Your task to perform on an android device: change alarm snooze length Image 0: 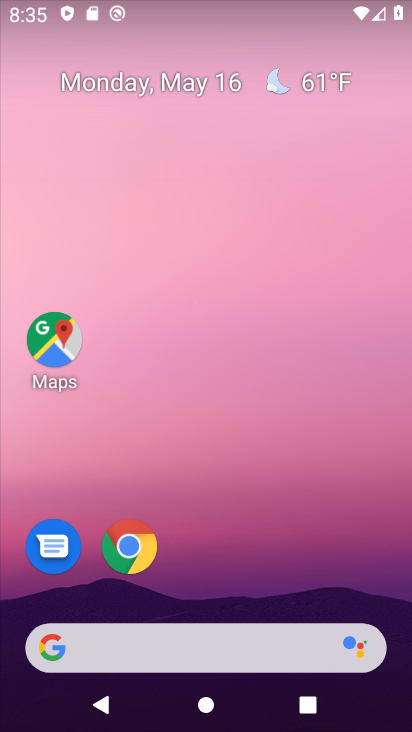
Step 0: drag from (273, 550) to (217, 186)
Your task to perform on an android device: change alarm snooze length Image 1: 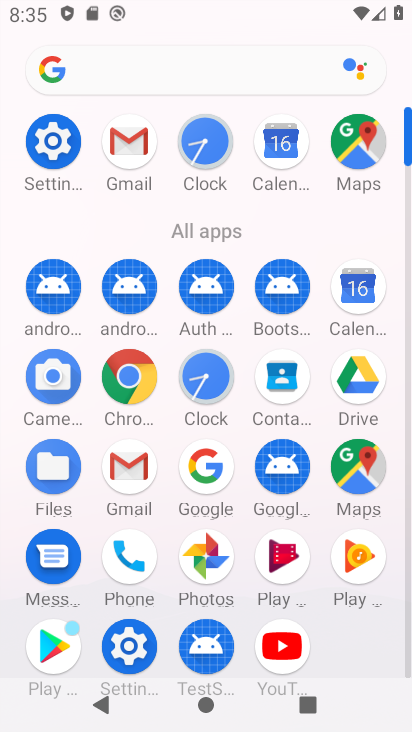
Step 1: click (210, 384)
Your task to perform on an android device: change alarm snooze length Image 2: 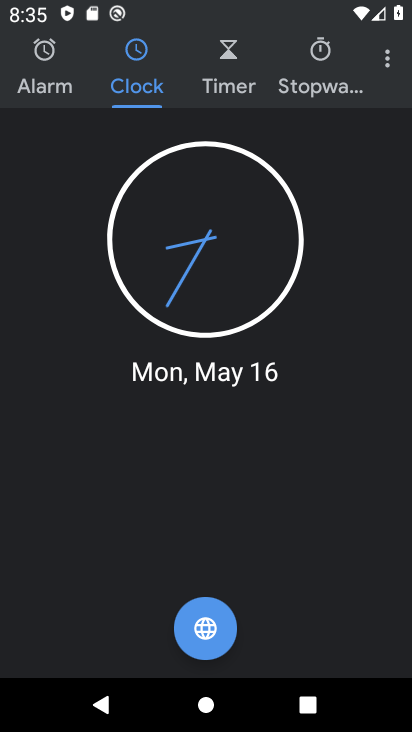
Step 2: click (392, 48)
Your task to perform on an android device: change alarm snooze length Image 3: 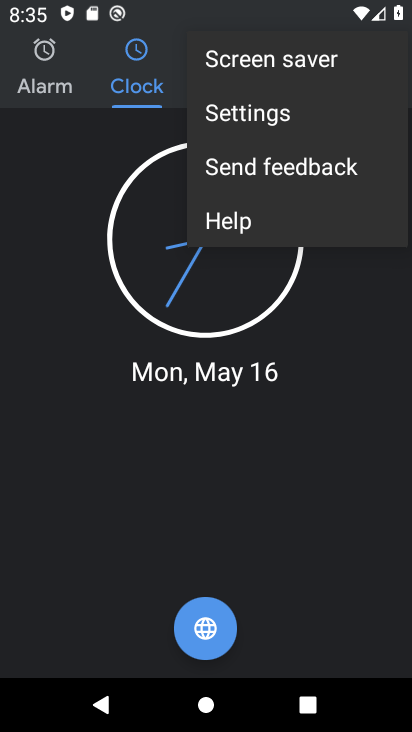
Step 3: click (265, 115)
Your task to perform on an android device: change alarm snooze length Image 4: 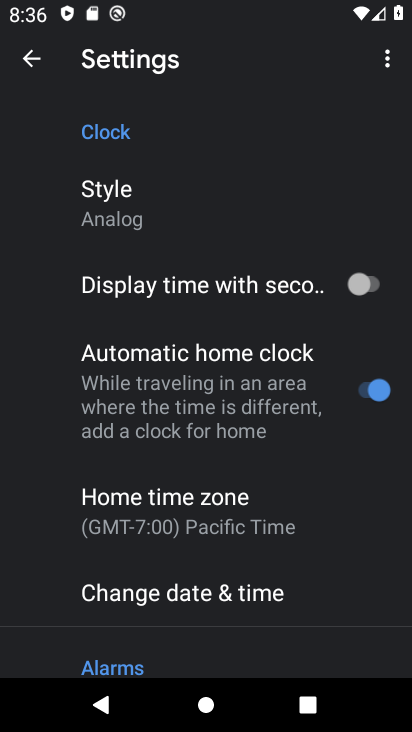
Step 4: drag from (260, 569) to (225, 431)
Your task to perform on an android device: change alarm snooze length Image 5: 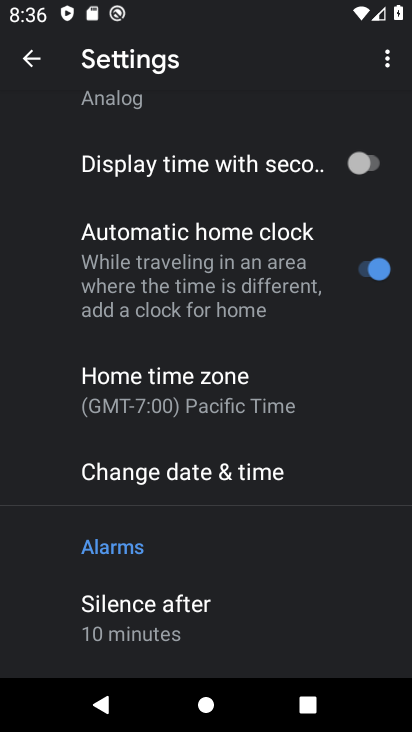
Step 5: drag from (248, 542) to (195, 237)
Your task to perform on an android device: change alarm snooze length Image 6: 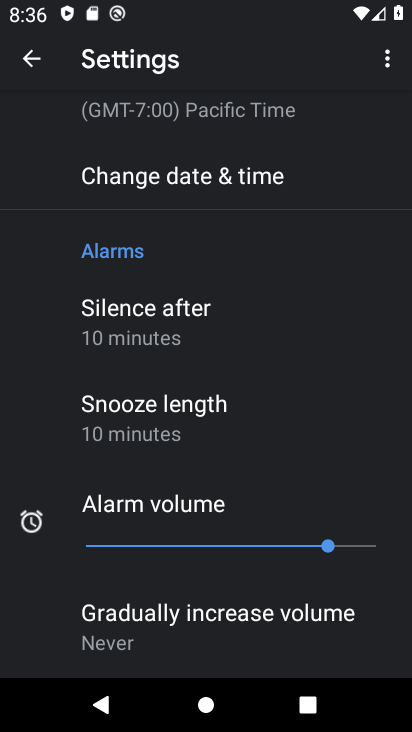
Step 6: drag from (239, 605) to (180, 297)
Your task to perform on an android device: change alarm snooze length Image 7: 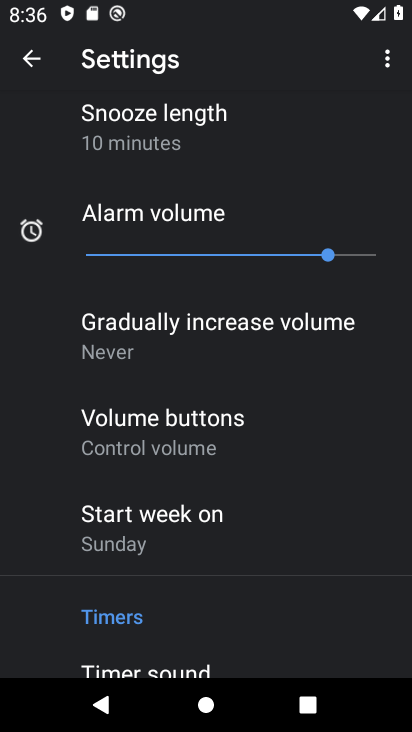
Step 7: click (183, 155)
Your task to perform on an android device: change alarm snooze length Image 8: 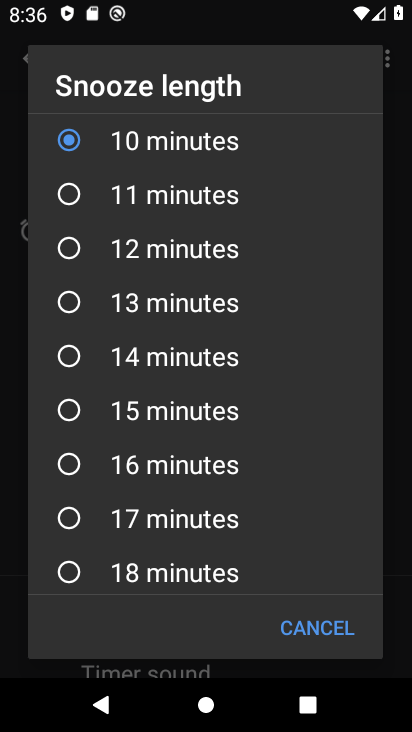
Step 8: click (151, 571)
Your task to perform on an android device: change alarm snooze length Image 9: 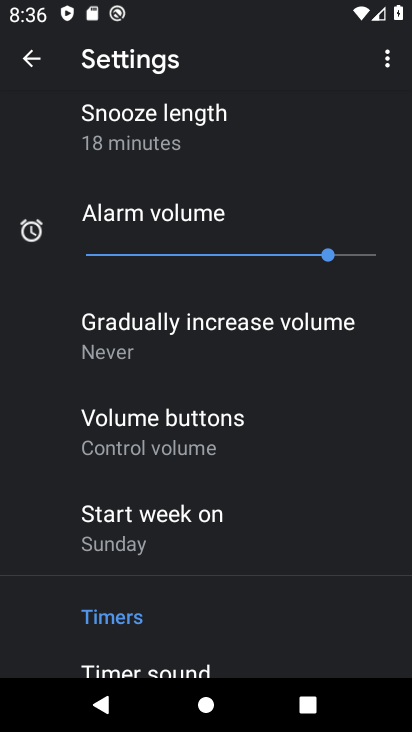
Step 9: task complete